Your task to perform on an android device: toggle data saver in the chrome app Image 0: 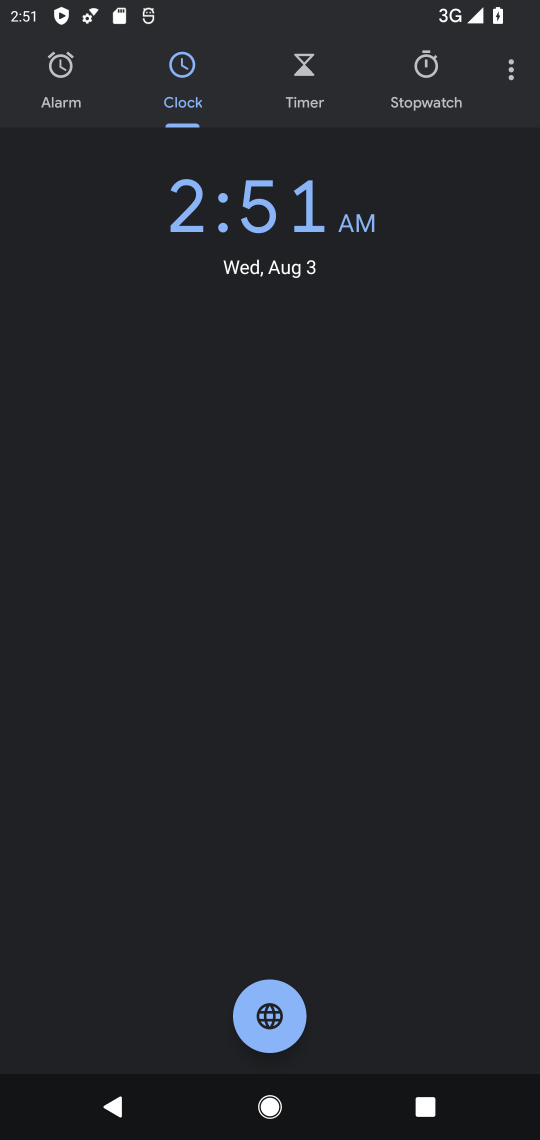
Step 0: press home button
Your task to perform on an android device: toggle data saver in the chrome app Image 1: 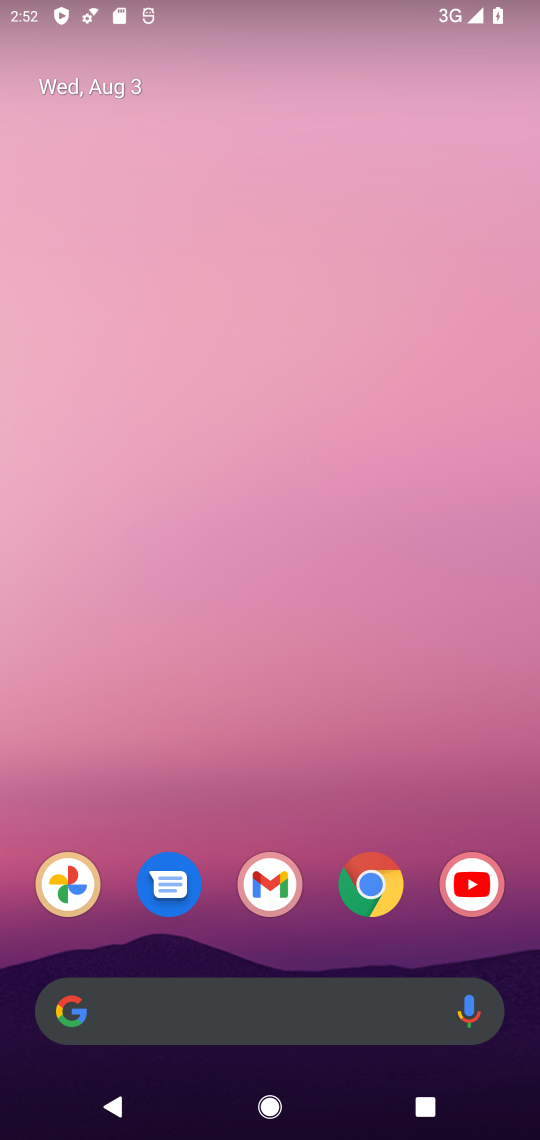
Step 1: drag from (200, 972) to (287, 107)
Your task to perform on an android device: toggle data saver in the chrome app Image 2: 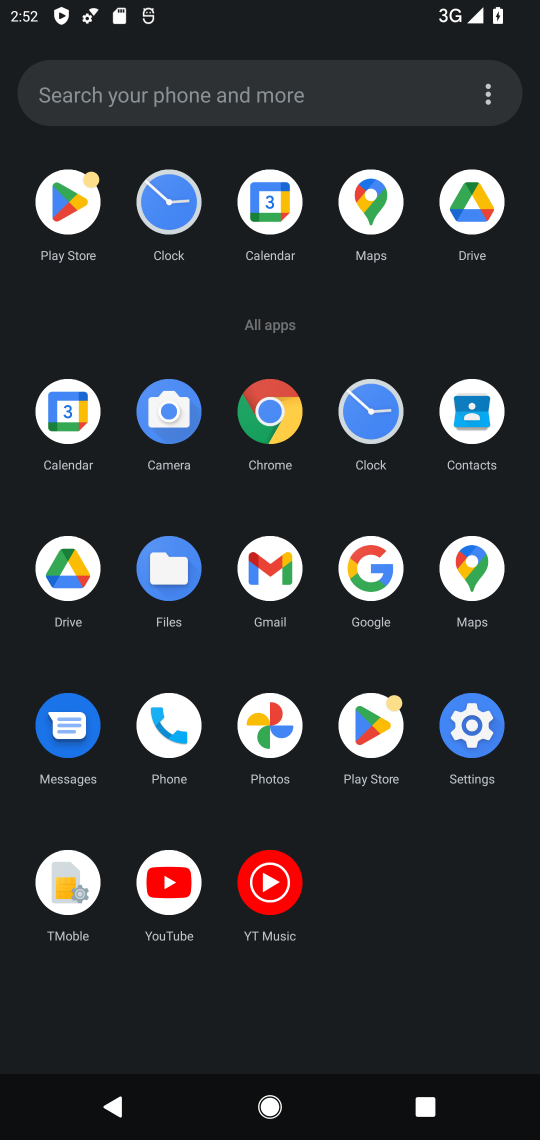
Step 2: click (468, 707)
Your task to perform on an android device: toggle data saver in the chrome app Image 3: 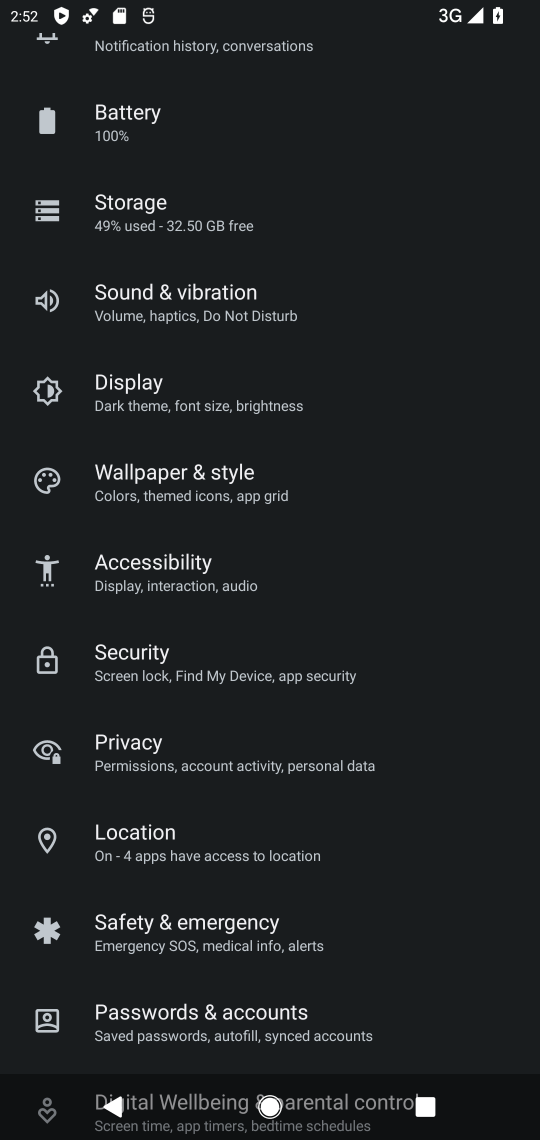
Step 3: drag from (252, 83) to (299, 846)
Your task to perform on an android device: toggle data saver in the chrome app Image 4: 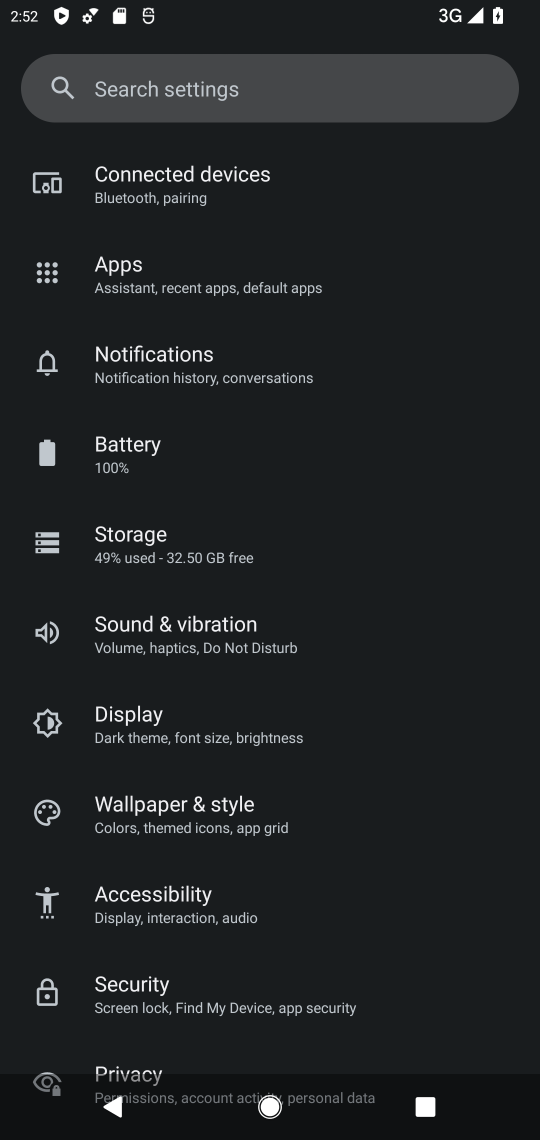
Step 4: click (227, 206)
Your task to perform on an android device: toggle data saver in the chrome app Image 5: 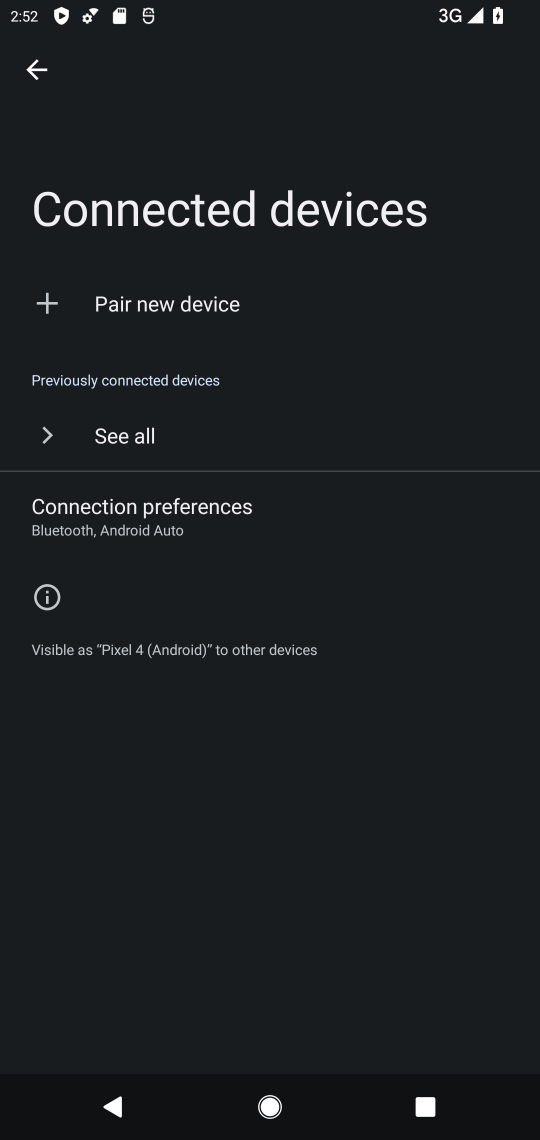
Step 5: task complete